Your task to perform on an android device: Set the phone to "Do not disturb". Image 0: 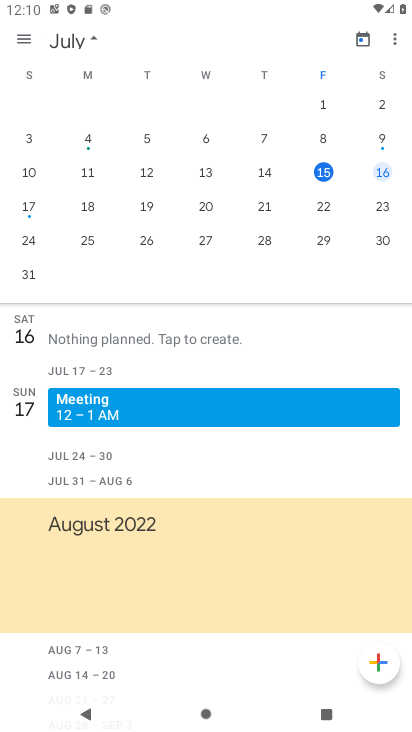
Step 0: press home button
Your task to perform on an android device: Set the phone to "Do not disturb". Image 1: 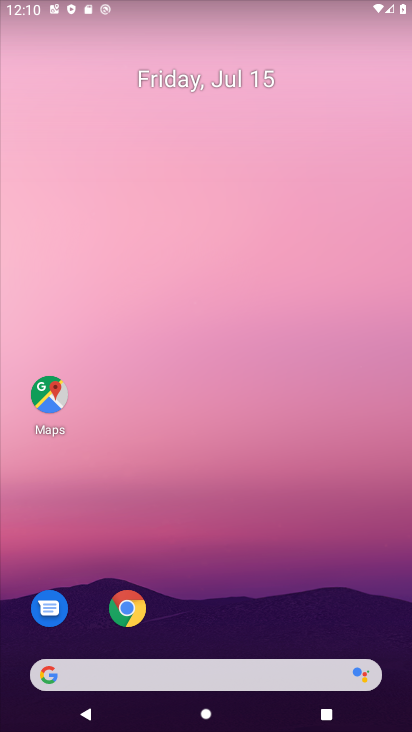
Step 1: drag from (314, 672) to (293, 50)
Your task to perform on an android device: Set the phone to "Do not disturb". Image 2: 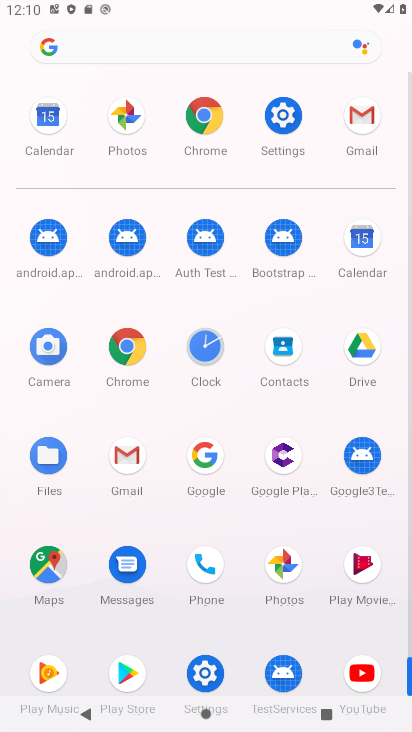
Step 2: click (285, 118)
Your task to perform on an android device: Set the phone to "Do not disturb". Image 3: 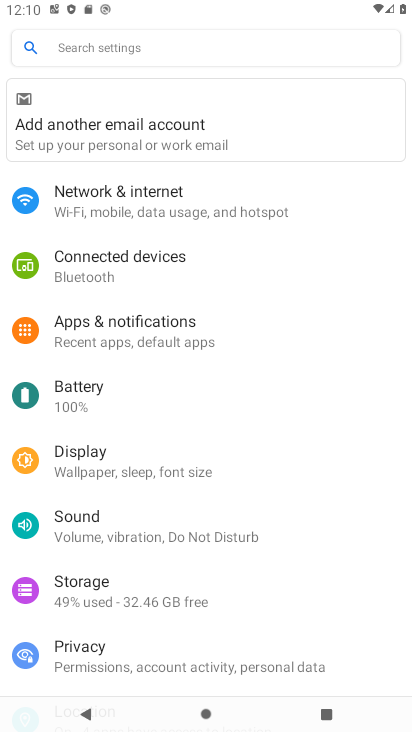
Step 3: click (141, 534)
Your task to perform on an android device: Set the phone to "Do not disturb". Image 4: 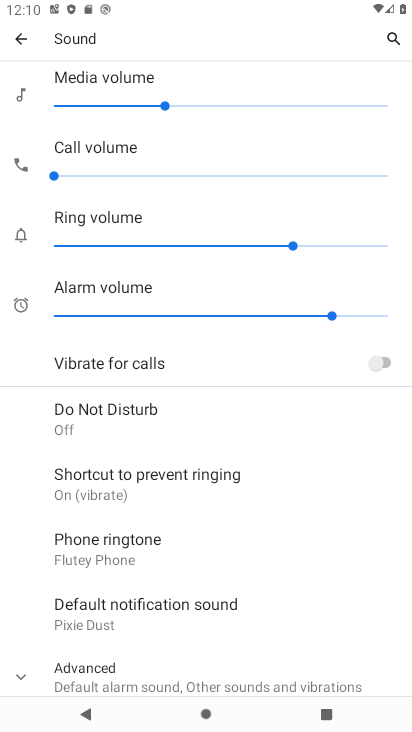
Step 4: click (125, 433)
Your task to perform on an android device: Set the phone to "Do not disturb". Image 5: 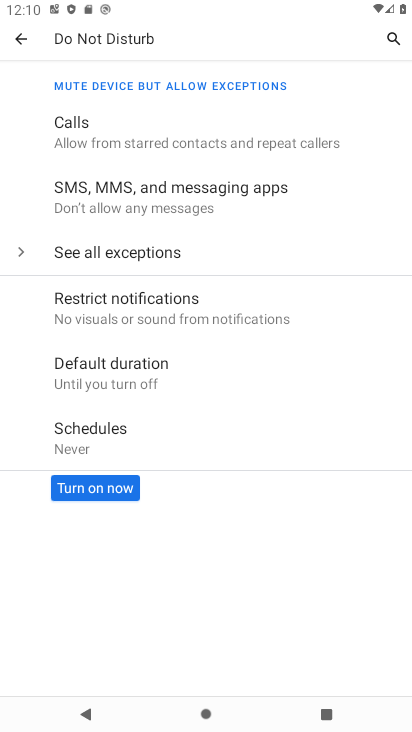
Step 5: click (110, 485)
Your task to perform on an android device: Set the phone to "Do not disturb". Image 6: 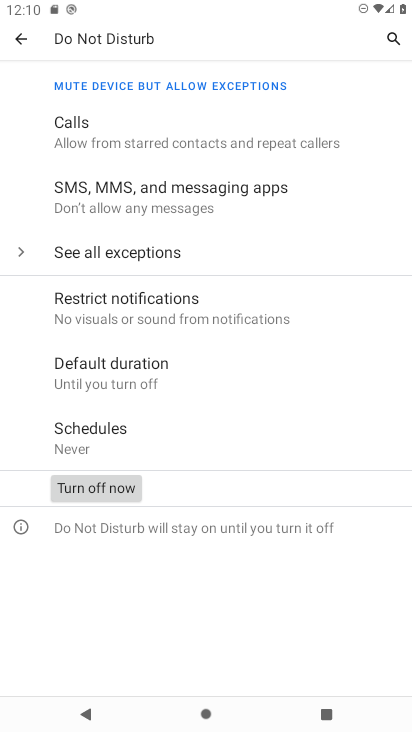
Step 6: task complete